Your task to perform on an android device: Go to Wikipedia Image 0: 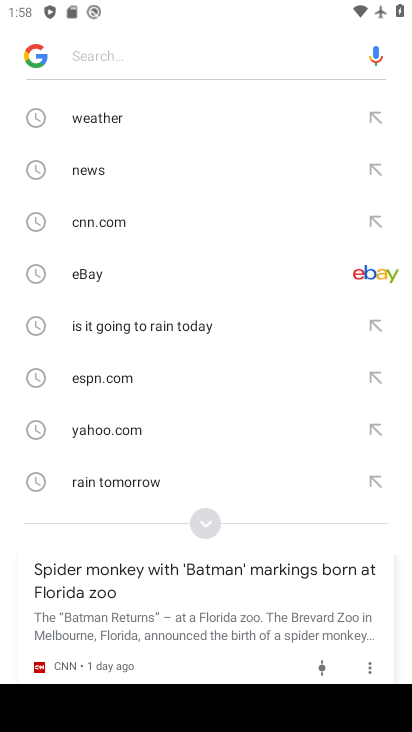
Step 0: press back button
Your task to perform on an android device: Go to Wikipedia Image 1: 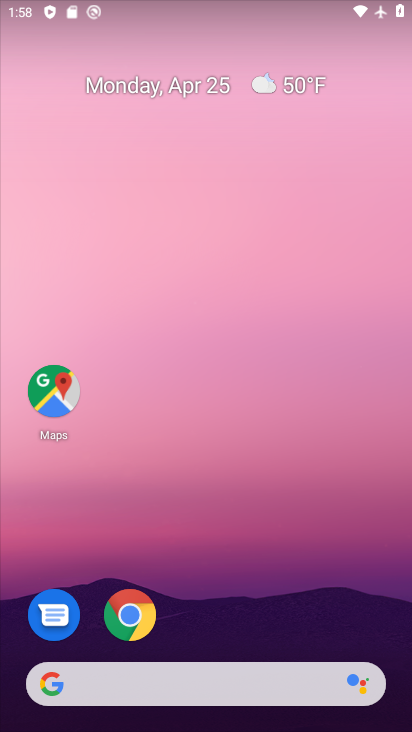
Step 1: click (133, 615)
Your task to perform on an android device: Go to Wikipedia Image 2: 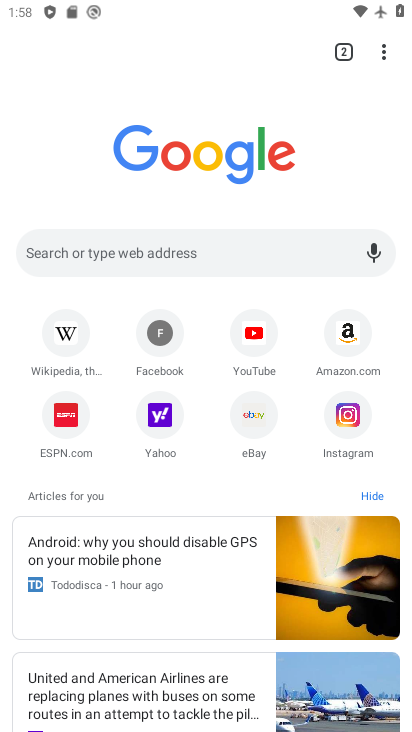
Step 2: click (66, 336)
Your task to perform on an android device: Go to Wikipedia Image 3: 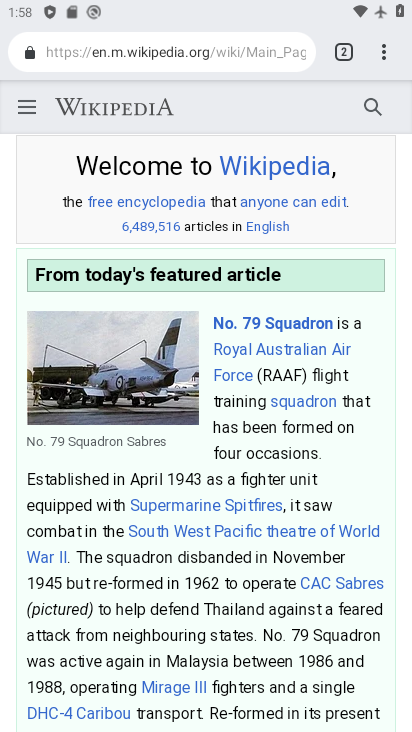
Step 3: task complete